Your task to perform on an android device: uninstall "NewsBreak: Local News & Alerts" Image 0: 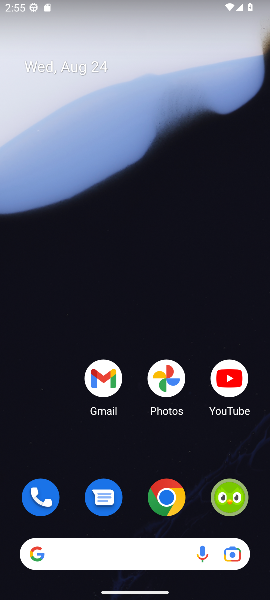
Step 0: drag from (104, 553) to (136, 246)
Your task to perform on an android device: uninstall "NewsBreak: Local News & Alerts" Image 1: 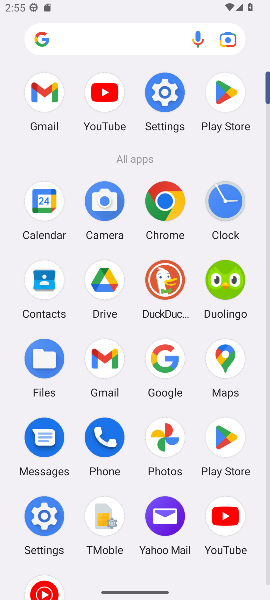
Step 1: click (225, 98)
Your task to perform on an android device: uninstall "NewsBreak: Local News & Alerts" Image 2: 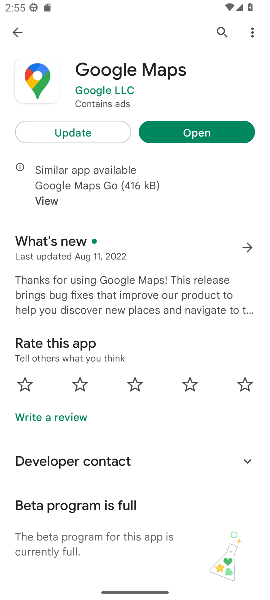
Step 2: press back button
Your task to perform on an android device: uninstall "NewsBreak: Local News & Alerts" Image 3: 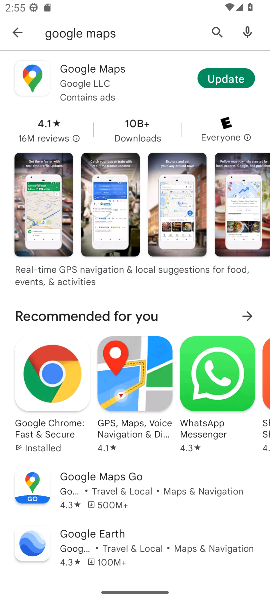
Step 3: press back button
Your task to perform on an android device: uninstall "NewsBreak: Local News & Alerts" Image 4: 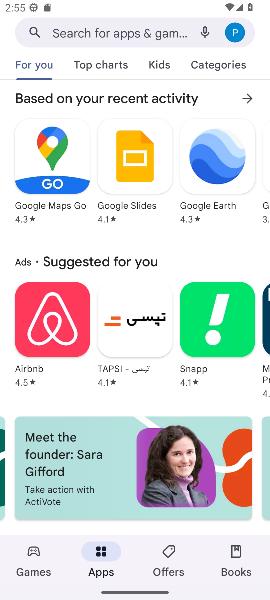
Step 4: click (144, 37)
Your task to perform on an android device: uninstall "NewsBreak: Local News & Alerts" Image 5: 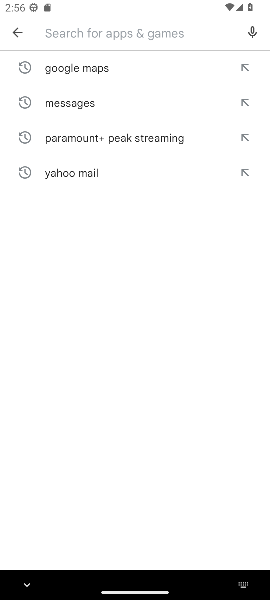
Step 5: type "NewsBreak: Local News & Alerts"
Your task to perform on an android device: uninstall "NewsBreak: Local News & Alerts" Image 6: 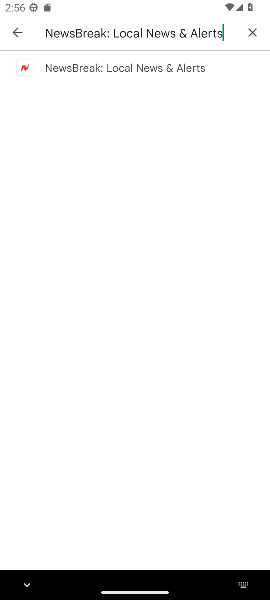
Step 6: click (176, 71)
Your task to perform on an android device: uninstall "NewsBreak: Local News & Alerts" Image 7: 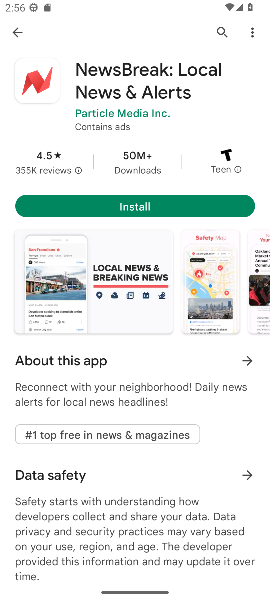
Step 7: task complete